Your task to perform on an android device: open a bookmark in the chrome app Image 0: 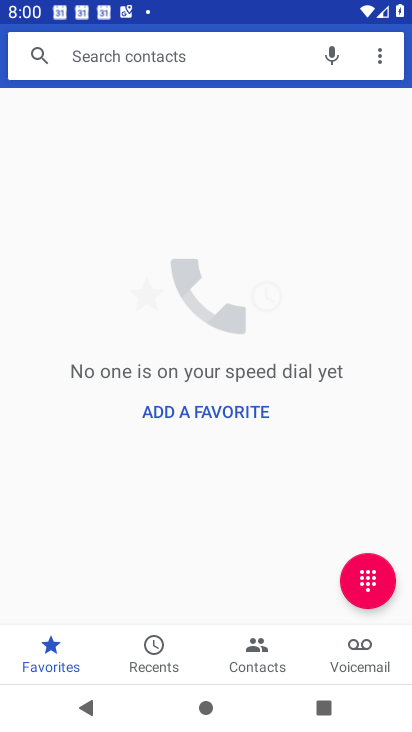
Step 0: press home button
Your task to perform on an android device: open a bookmark in the chrome app Image 1: 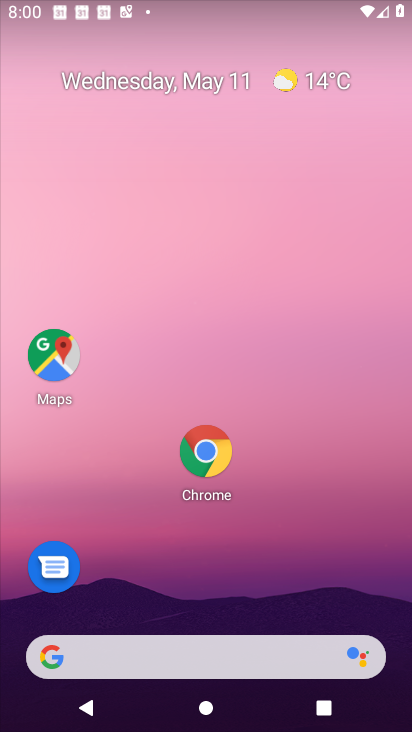
Step 1: click (209, 449)
Your task to perform on an android device: open a bookmark in the chrome app Image 2: 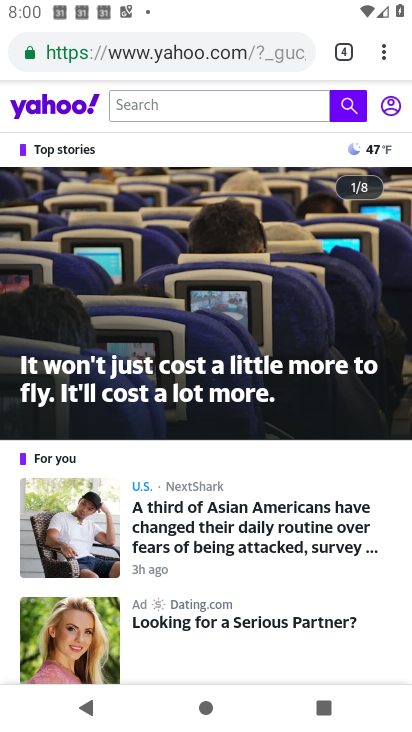
Step 2: task complete